Your task to perform on an android device: Open internet settings Image 0: 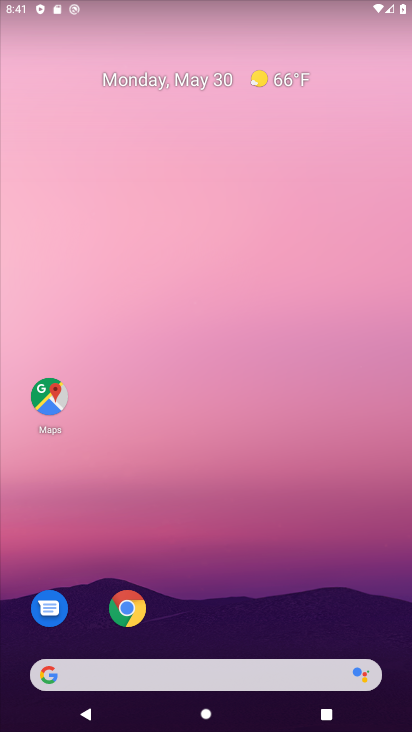
Step 0: drag from (226, 730) to (197, 167)
Your task to perform on an android device: Open internet settings Image 1: 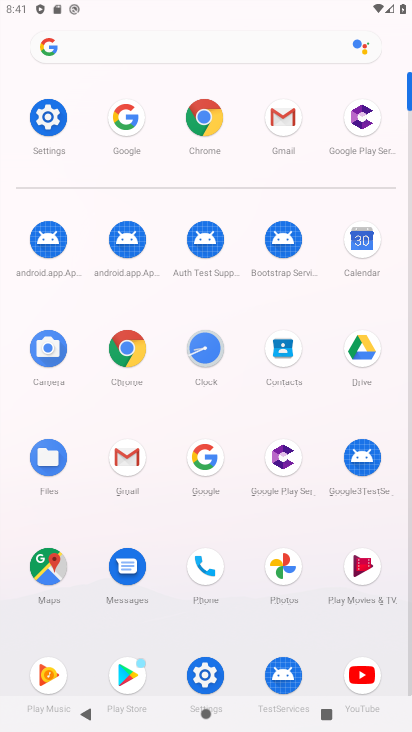
Step 1: click (35, 125)
Your task to perform on an android device: Open internet settings Image 2: 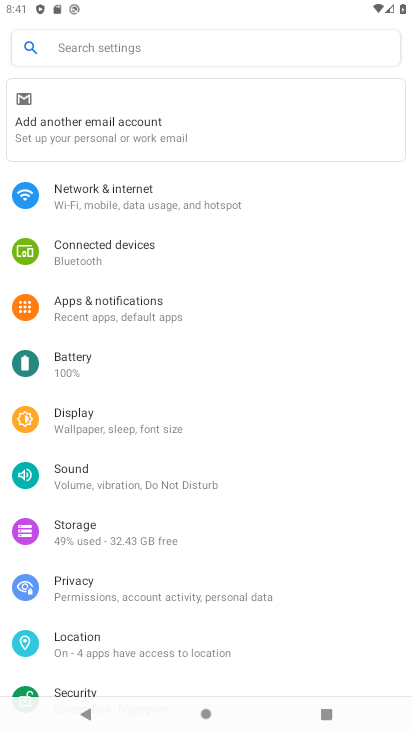
Step 2: click (146, 203)
Your task to perform on an android device: Open internet settings Image 3: 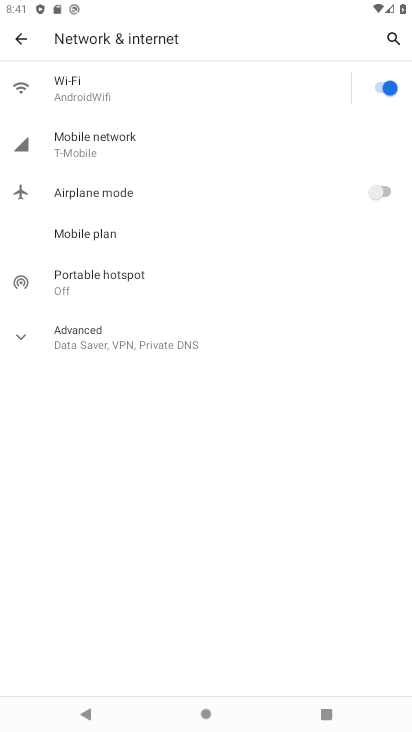
Step 3: click (72, 85)
Your task to perform on an android device: Open internet settings Image 4: 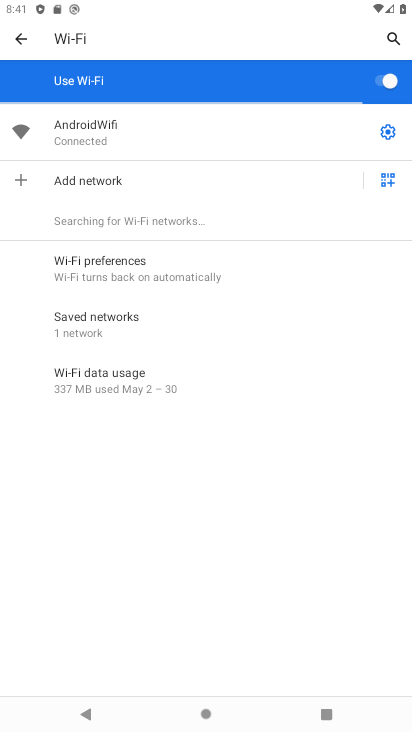
Step 4: task complete